Your task to perform on an android device: turn off location Image 0: 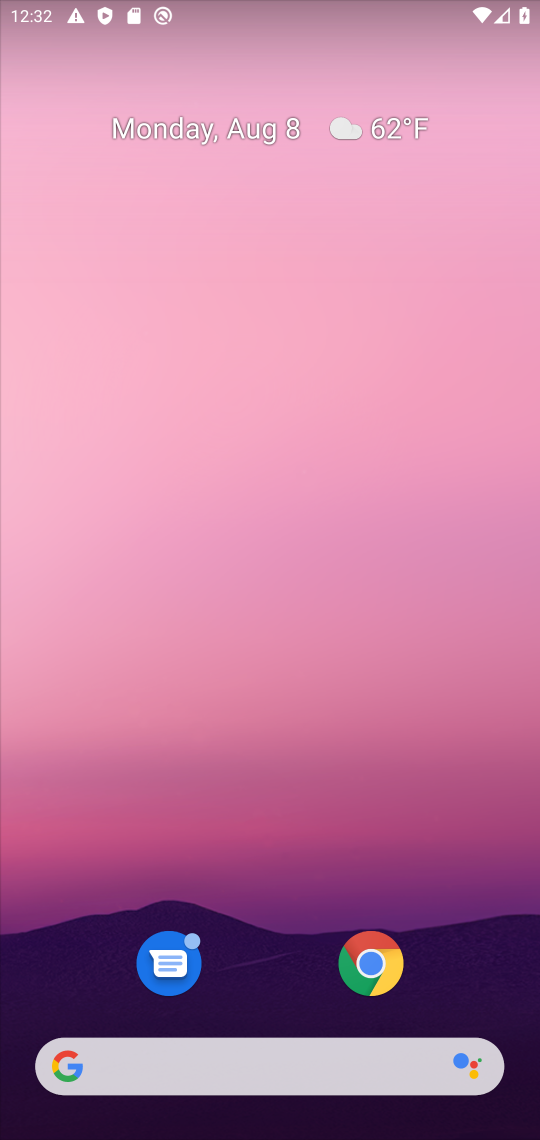
Step 0: drag from (516, 962) to (297, 166)
Your task to perform on an android device: turn off location Image 1: 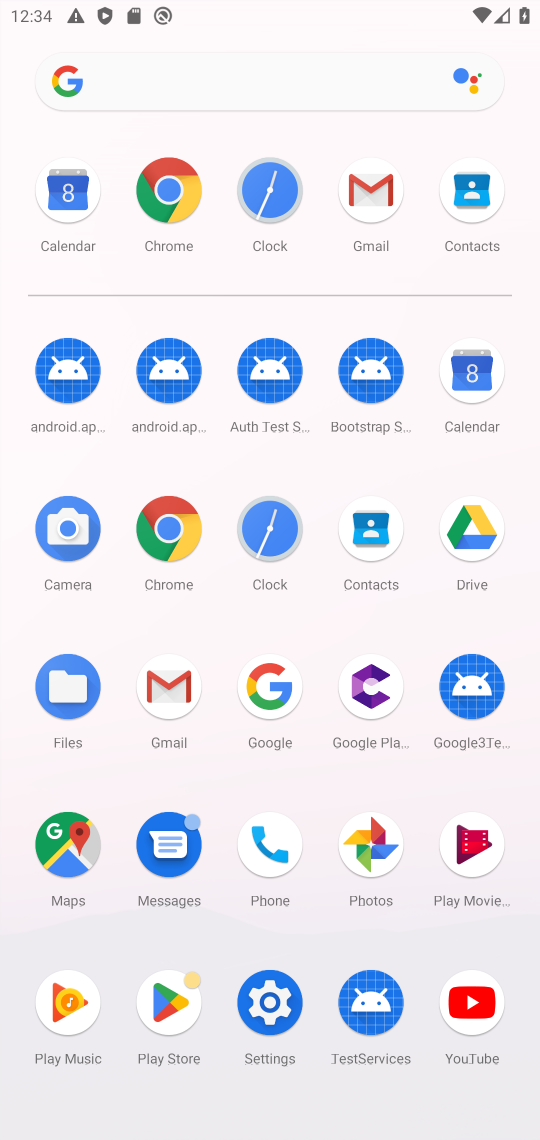
Step 1: click (282, 999)
Your task to perform on an android device: turn off location Image 2: 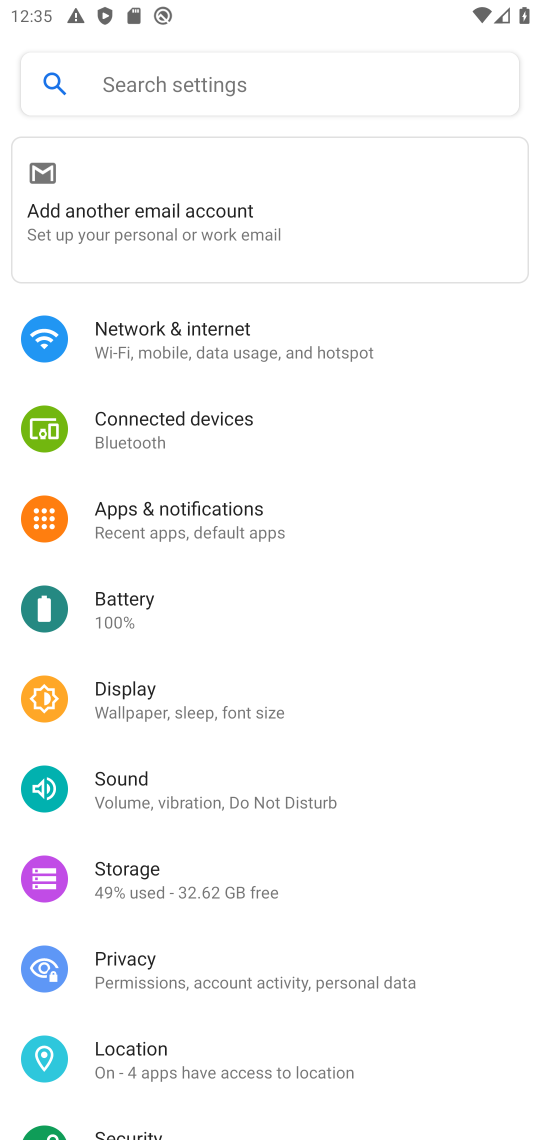
Step 2: click (158, 1075)
Your task to perform on an android device: turn off location Image 3: 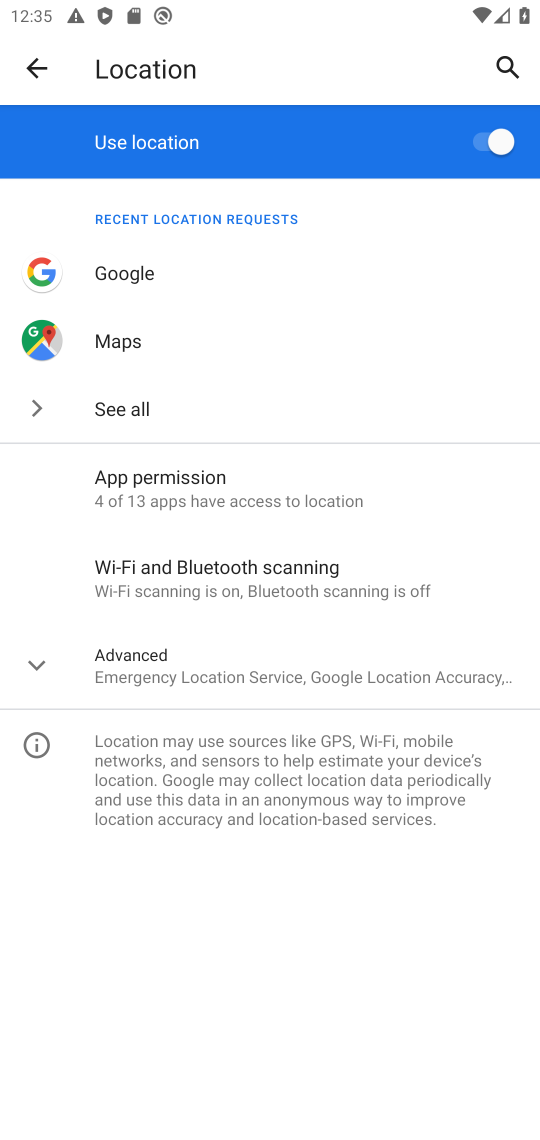
Step 3: click (494, 145)
Your task to perform on an android device: turn off location Image 4: 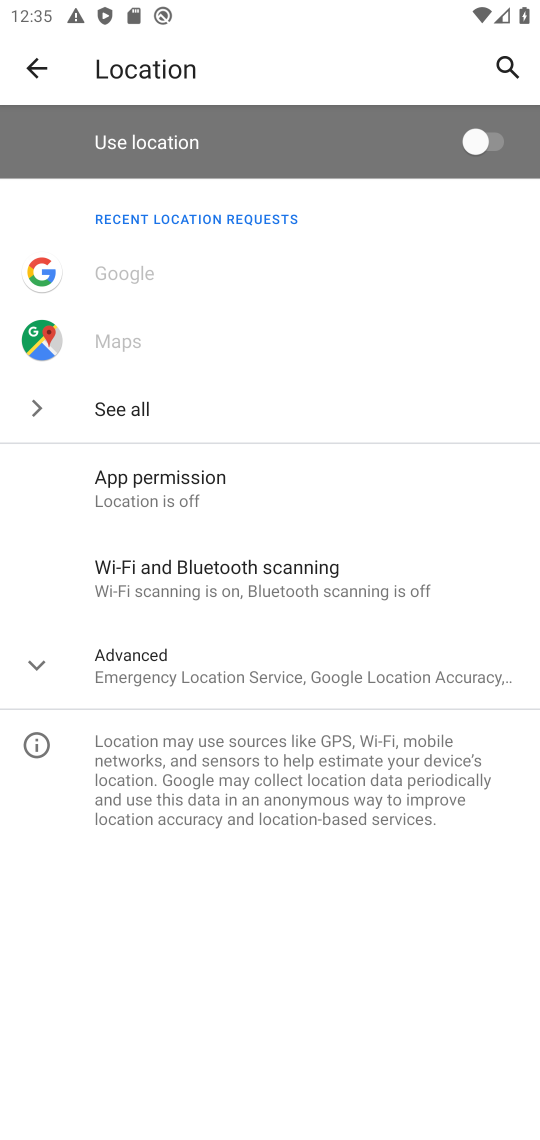
Step 4: task complete